Your task to perform on an android device: Search for vegetarian restaurants on Maps Image 0: 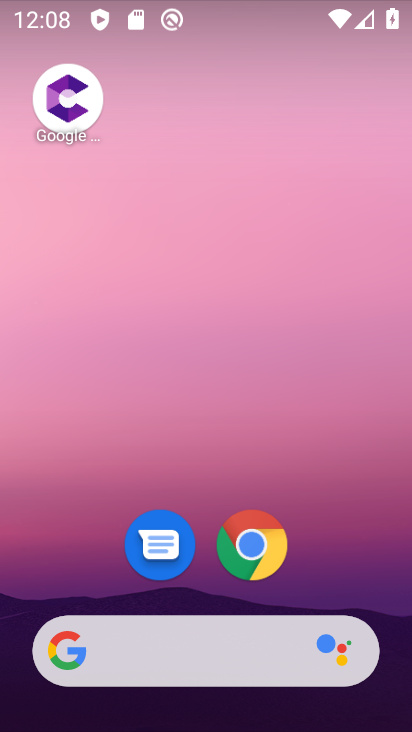
Step 0: drag from (373, 543) to (299, 207)
Your task to perform on an android device: Search for vegetarian restaurants on Maps Image 1: 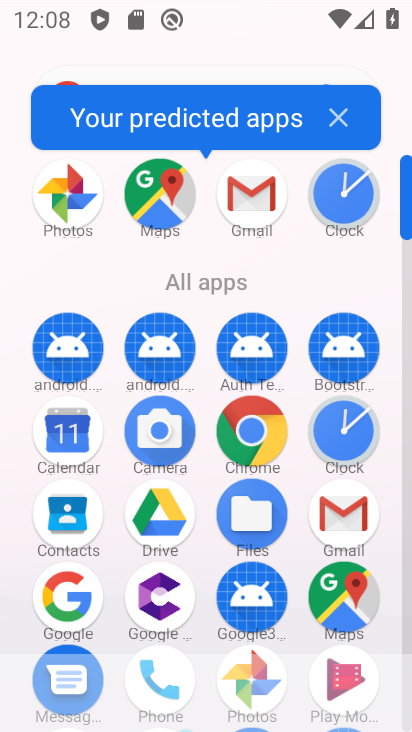
Step 1: click (160, 193)
Your task to perform on an android device: Search for vegetarian restaurants on Maps Image 2: 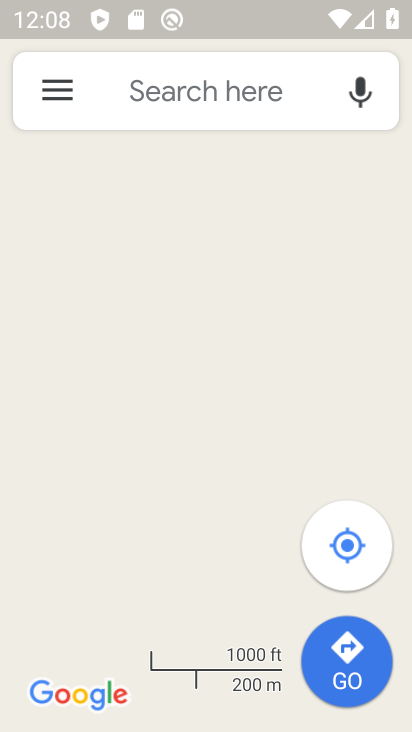
Step 2: click (164, 90)
Your task to perform on an android device: Search for vegetarian restaurants on Maps Image 3: 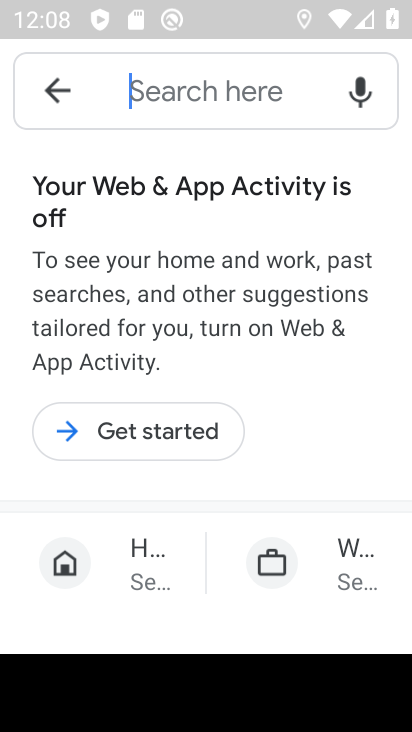
Step 3: type " vegetarian restaurants"
Your task to perform on an android device: Search for vegetarian restaurants on Maps Image 4: 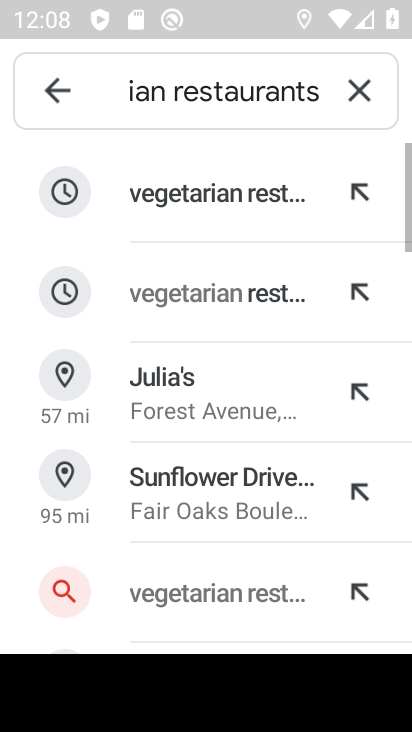
Step 4: click (217, 180)
Your task to perform on an android device: Search for vegetarian restaurants on Maps Image 5: 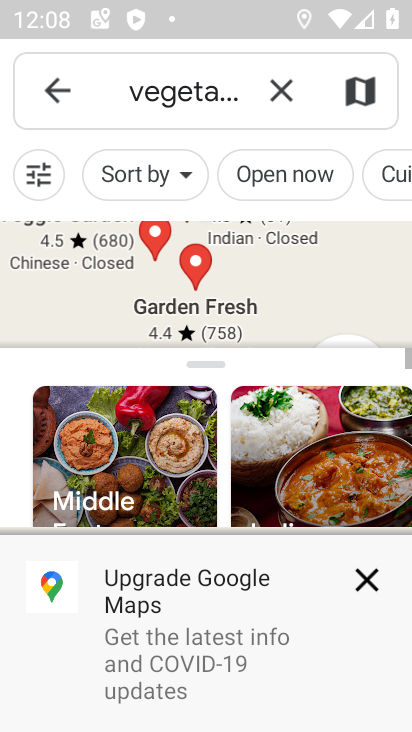
Step 5: task complete